Your task to perform on an android device: Go to Android settings Image 0: 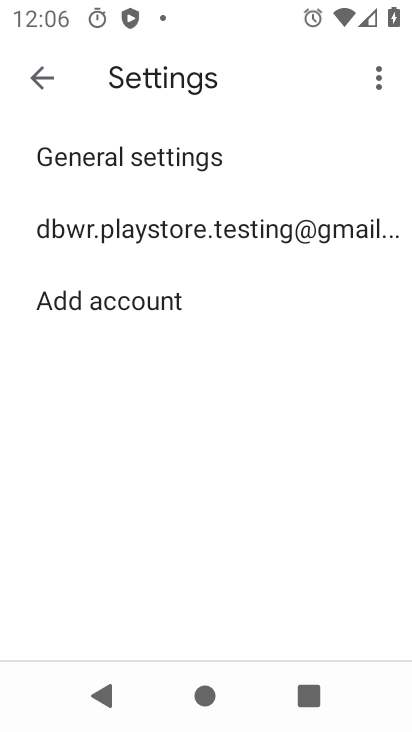
Step 0: press back button
Your task to perform on an android device: Go to Android settings Image 1: 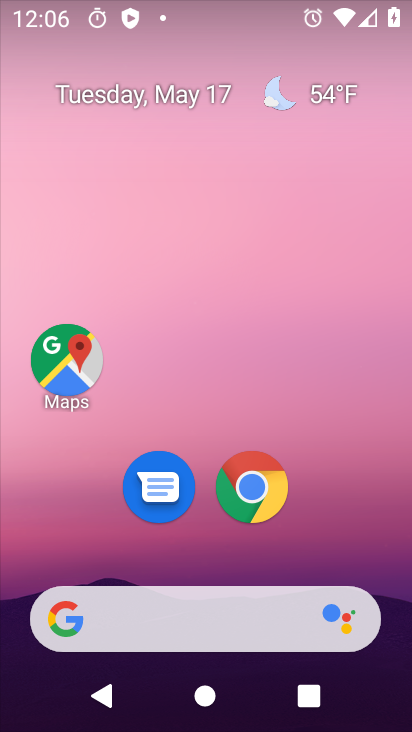
Step 1: drag from (170, 575) to (257, 48)
Your task to perform on an android device: Go to Android settings Image 2: 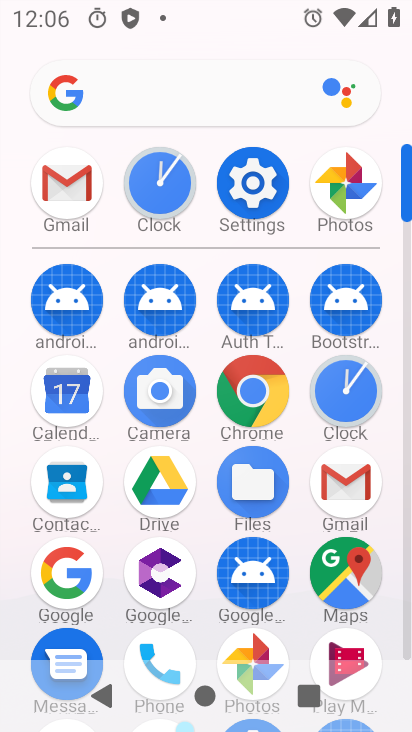
Step 2: click (248, 184)
Your task to perform on an android device: Go to Android settings Image 3: 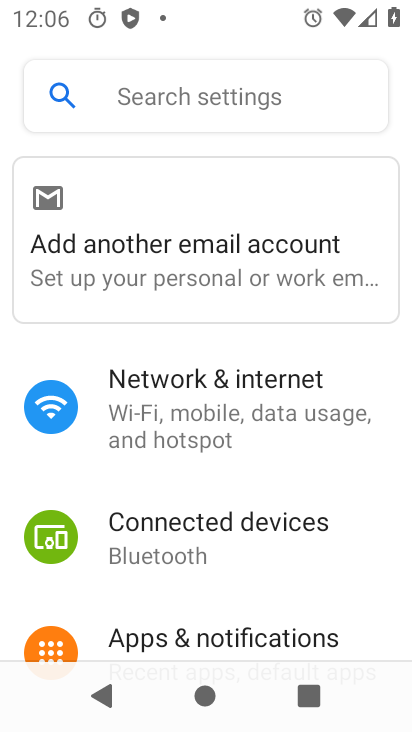
Step 3: drag from (192, 622) to (253, 62)
Your task to perform on an android device: Go to Android settings Image 4: 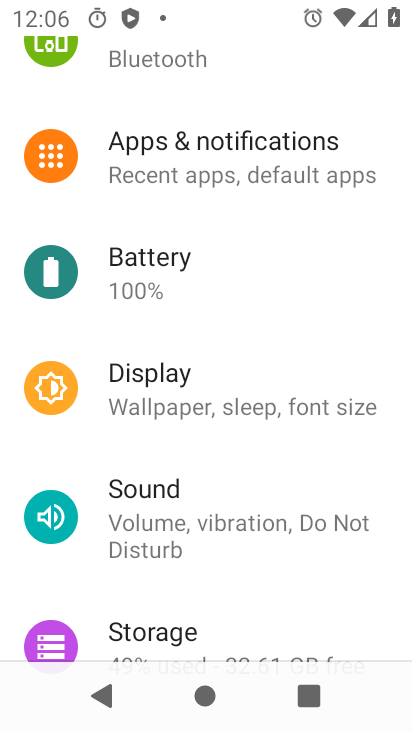
Step 4: drag from (199, 574) to (240, 103)
Your task to perform on an android device: Go to Android settings Image 5: 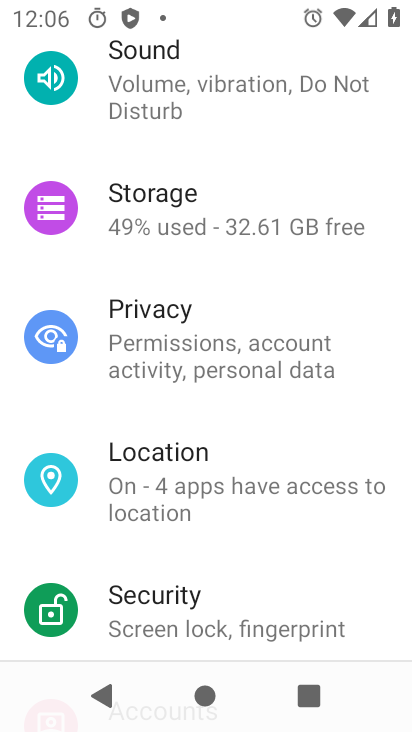
Step 5: drag from (195, 597) to (264, 36)
Your task to perform on an android device: Go to Android settings Image 6: 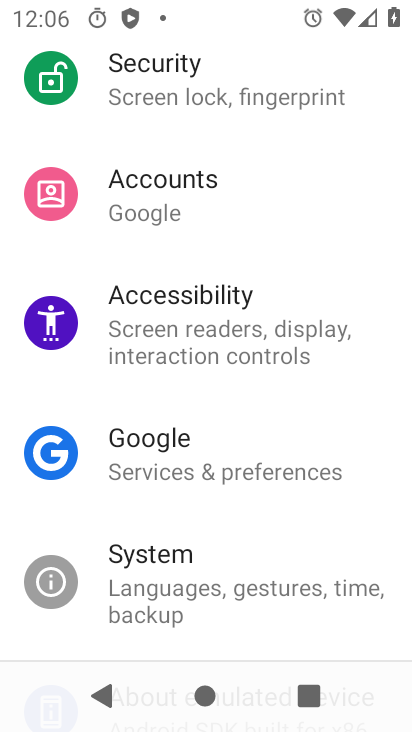
Step 6: drag from (198, 535) to (241, 48)
Your task to perform on an android device: Go to Android settings Image 7: 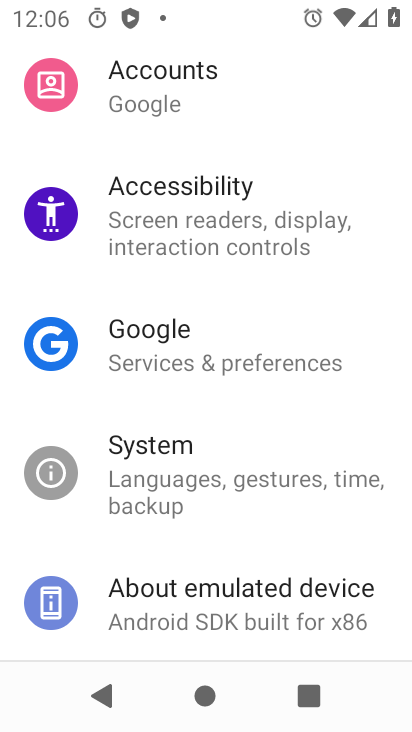
Step 7: drag from (166, 596) to (241, 86)
Your task to perform on an android device: Go to Android settings Image 8: 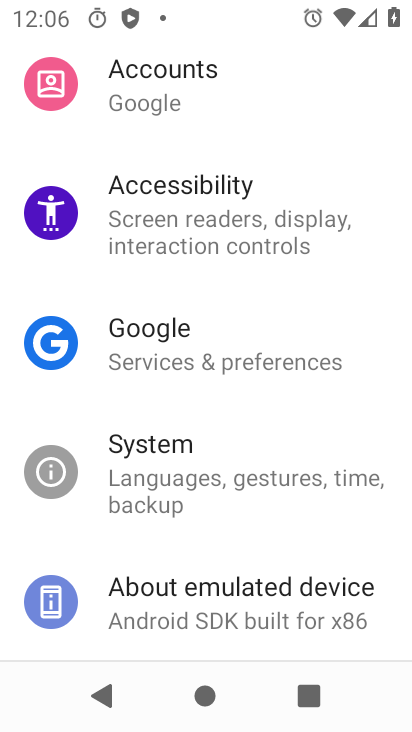
Step 8: click (198, 608)
Your task to perform on an android device: Go to Android settings Image 9: 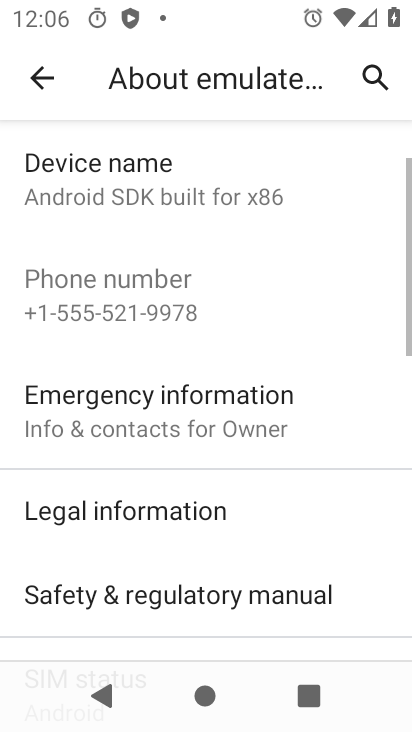
Step 9: drag from (156, 592) to (236, 87)
Your task to perform on an android device: Go to Android settings Image 10: 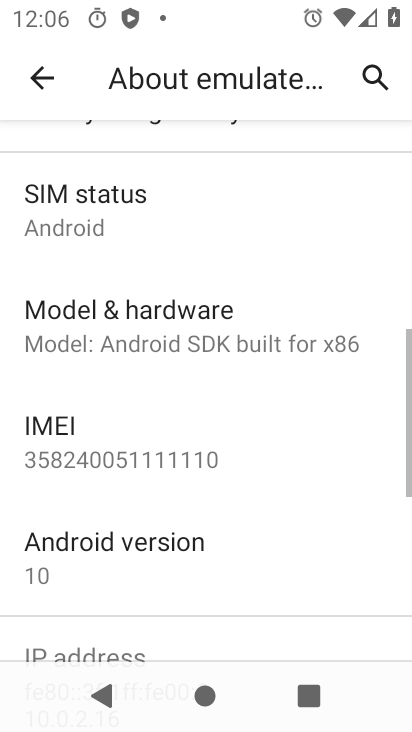
Step 10: click (87, 200)
Your task to perform on an android device: Go to Android settings Image 11: 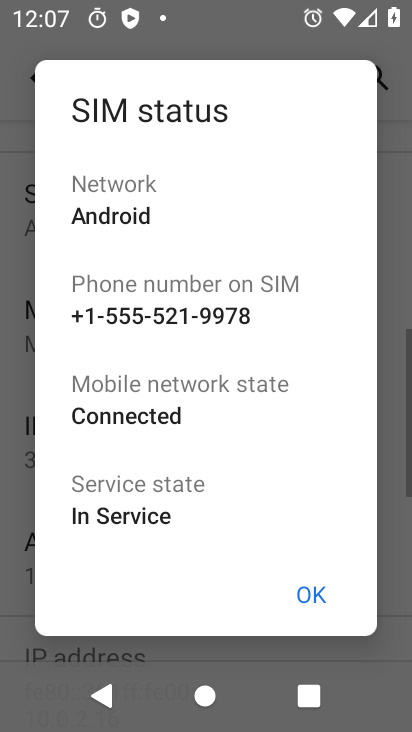
Step 11: click (318, 592)
Your task to perform on an android device: Go to Android settings Image 12: 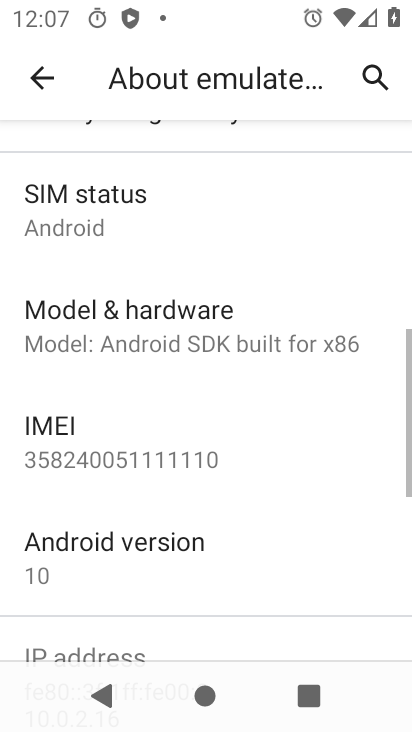
Step 12: task complete